Your task to perform on an android device: turn off airplane mode Image 0: 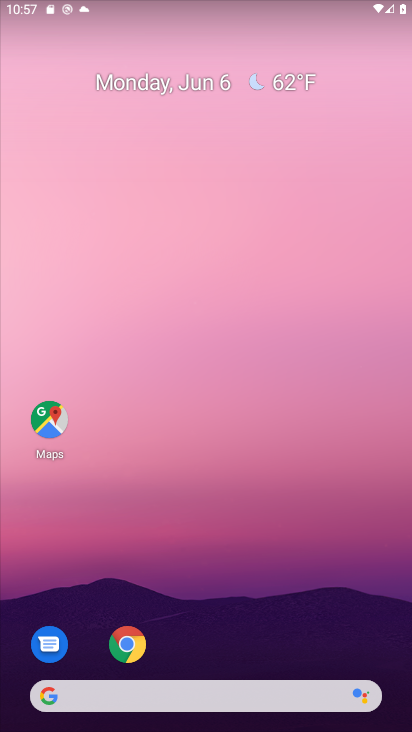
Step 0: drag from (287, 5) to (312, 478)
Your task to perform on an android device: turn off airplane mode Image 1: 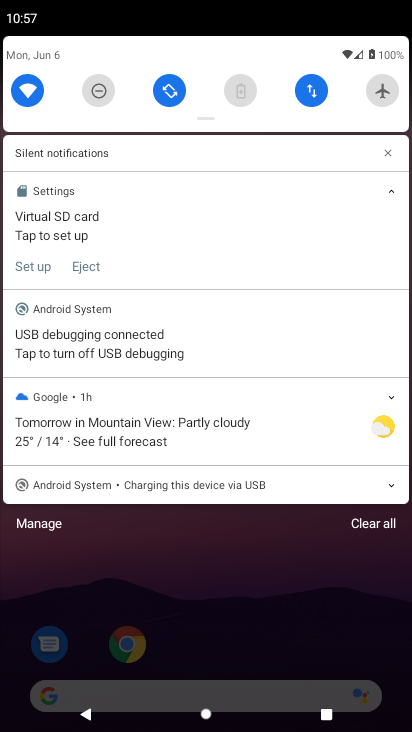
Step 1: task complete